Your task to perform on an android device: Go to accessibility settings Image 0: 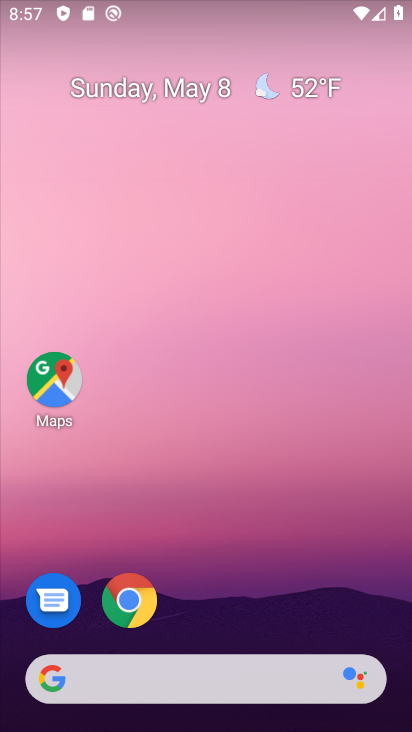
Step 0: drag from (215, 562) to (298, 102)
Your task to perform on an android device: Go to accessibility settings Image 1: 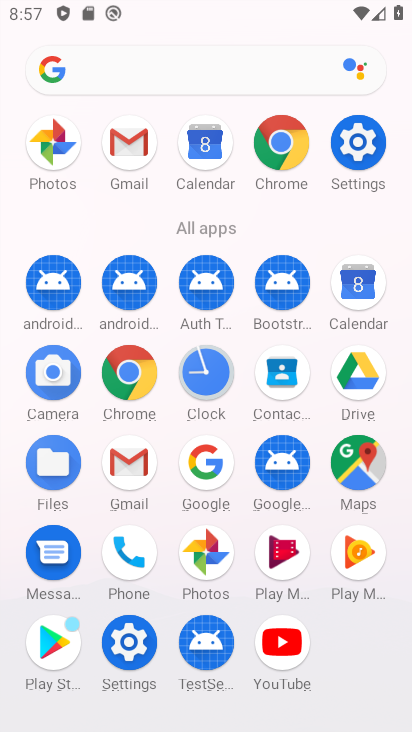
Step 1: click (369, 157)
Your task to perform on an android device: Go to accessibility settings Image 2: 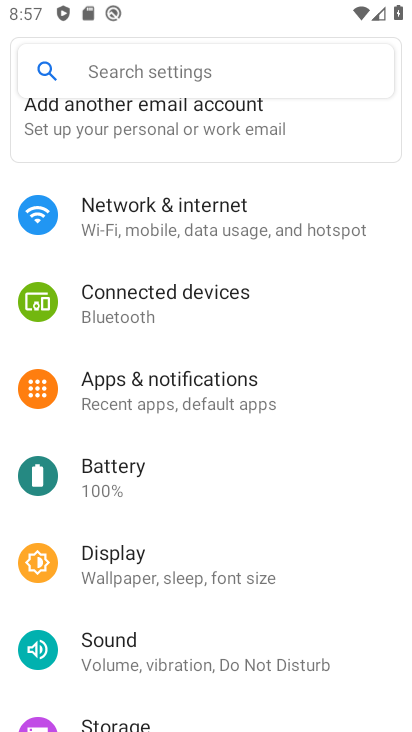
Step 2: drag from (243, 650) to (250, 178)
Your task to perform on an android device: Go to accessibility settings Image 3: 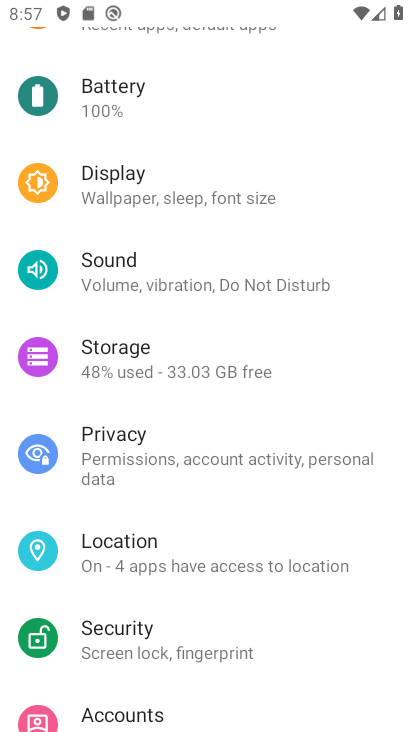
Step 3: drag from (224, 680) to (263, 209)
Your task to perform on an android device: Go to accessibility settings Image 4: 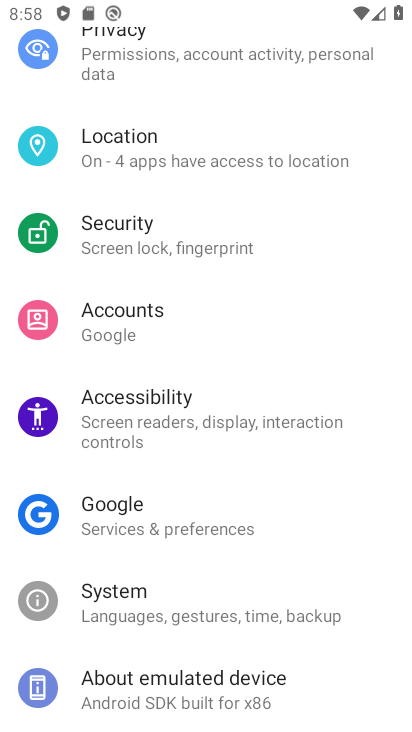
Step 4: click (223, 426)
Your task to perform on an android device: Go to accessibility settings Image 5: 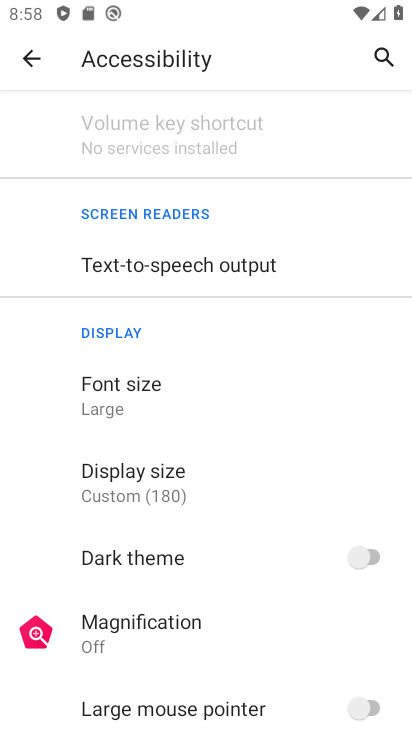
Step 5: task complete